Your task to perform on an android device: Search for a new lipstick on Sephora Image 0: 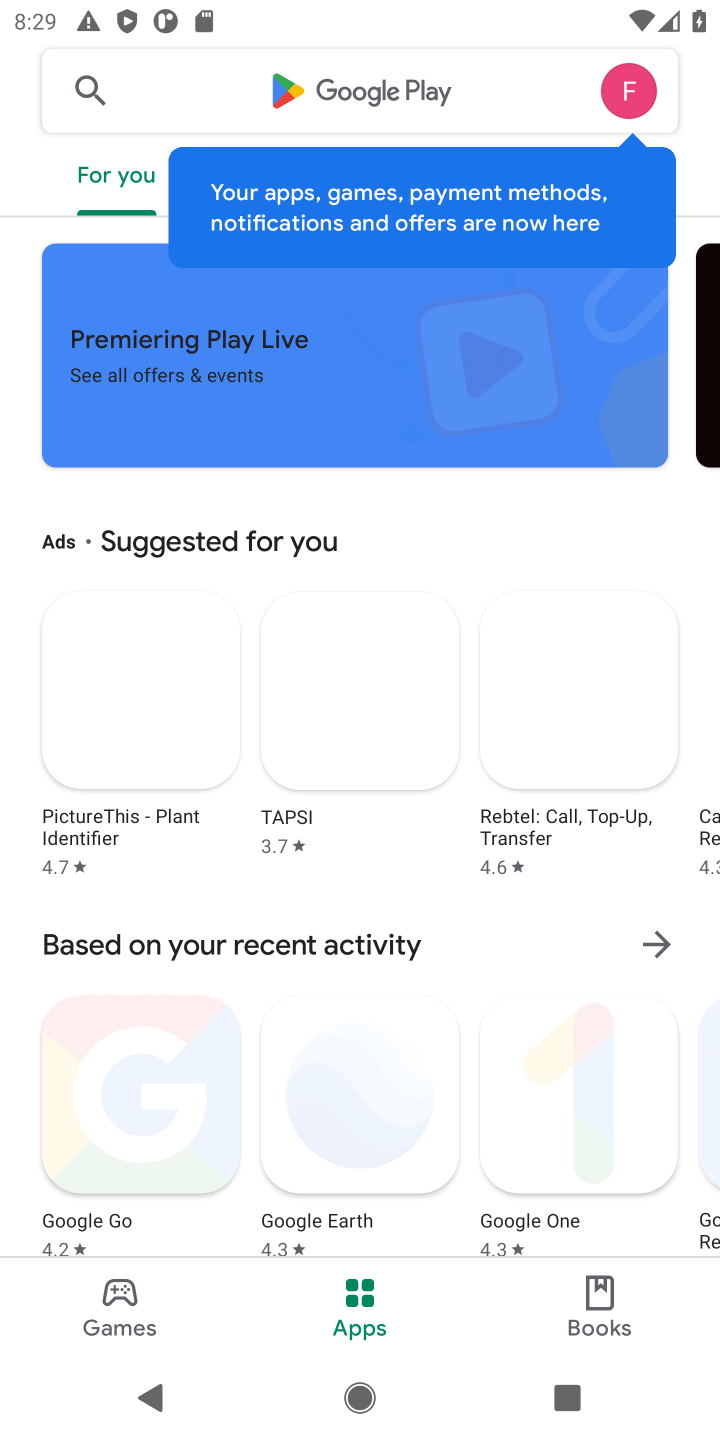
Step 0: press home button
Your task to perform on an android device: Search for a new lipstick on Sephora Image 1: 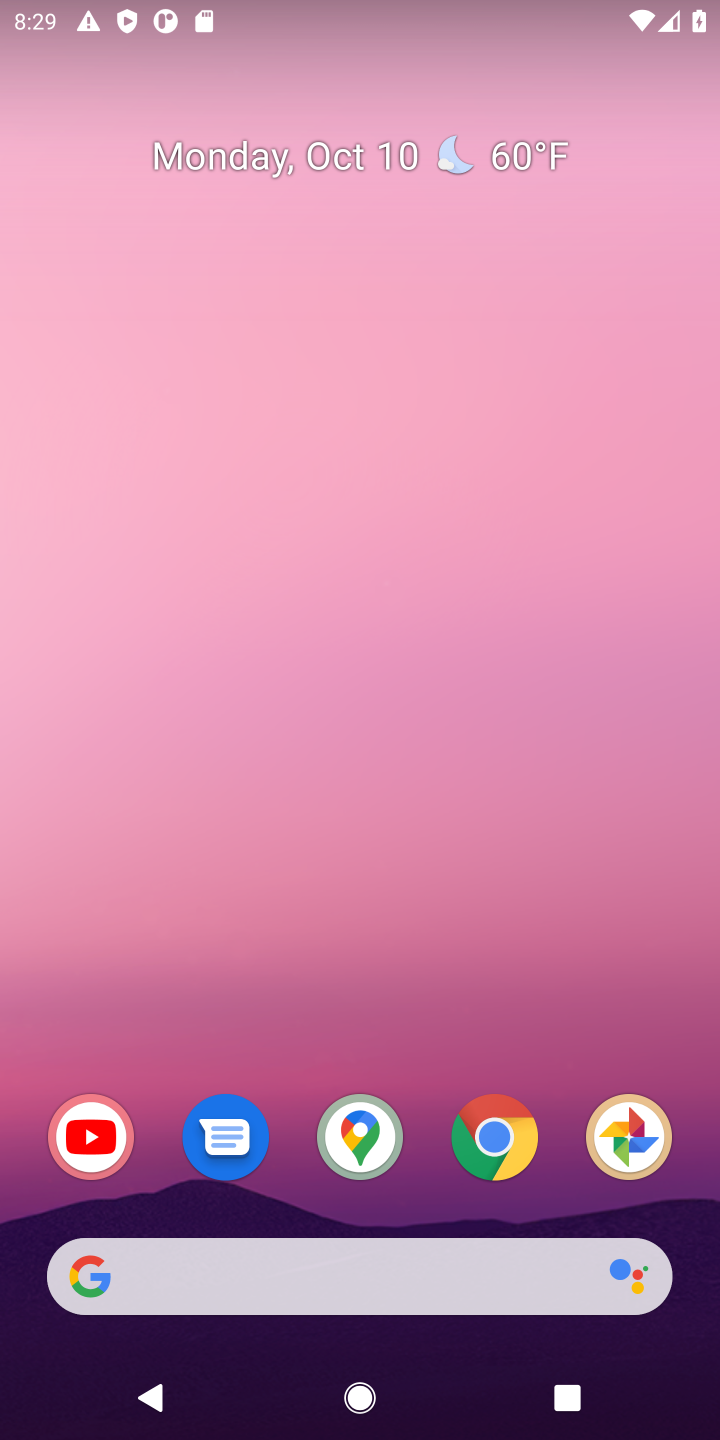
Step 1: click (489, 1130)
Your task to perform on an android device: Search for a new lipstick on Sephora Image 2: 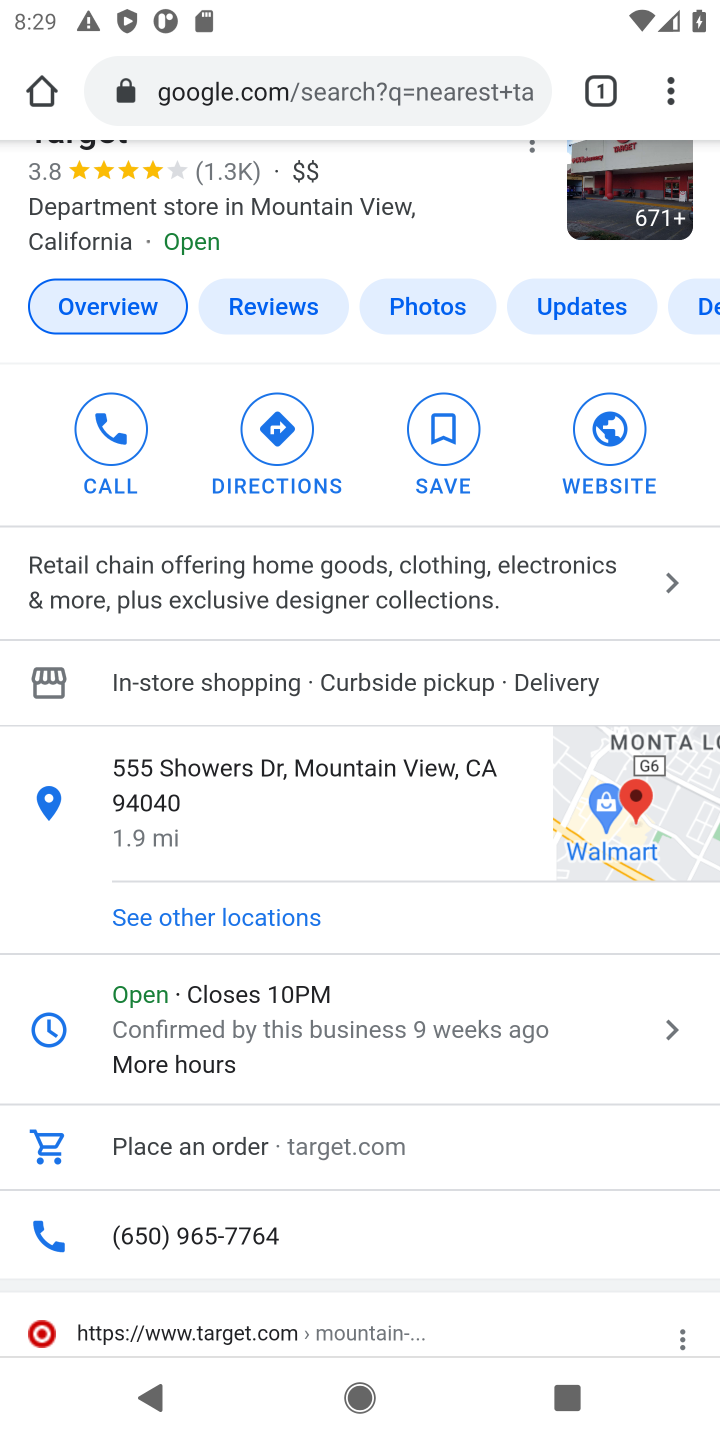
Step 2: click (280, 72)
Your task to perform on an android device: Search for a new lipstick on Sephora Image 3: 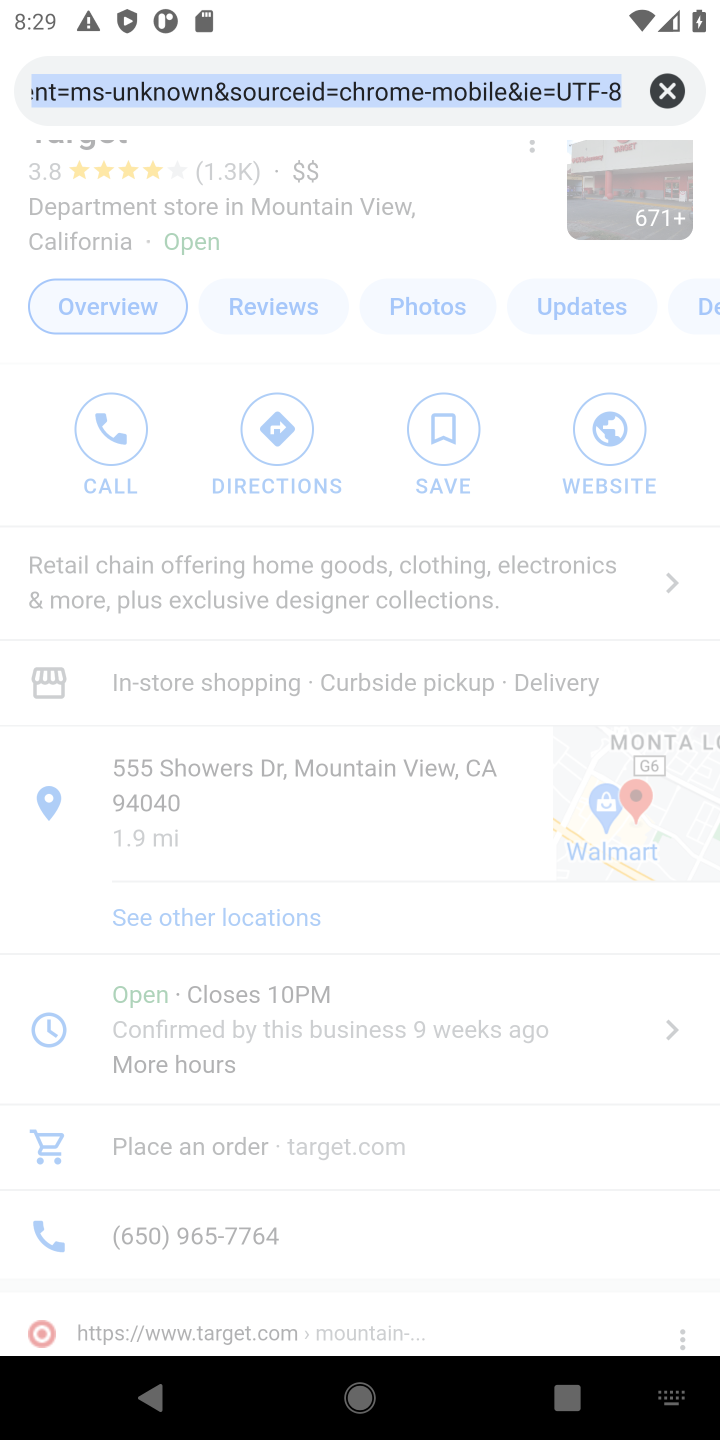
Step 3: click (663, 80)
Your task to perform on an android device: Search for a new lipstick on Sephora Image 4: 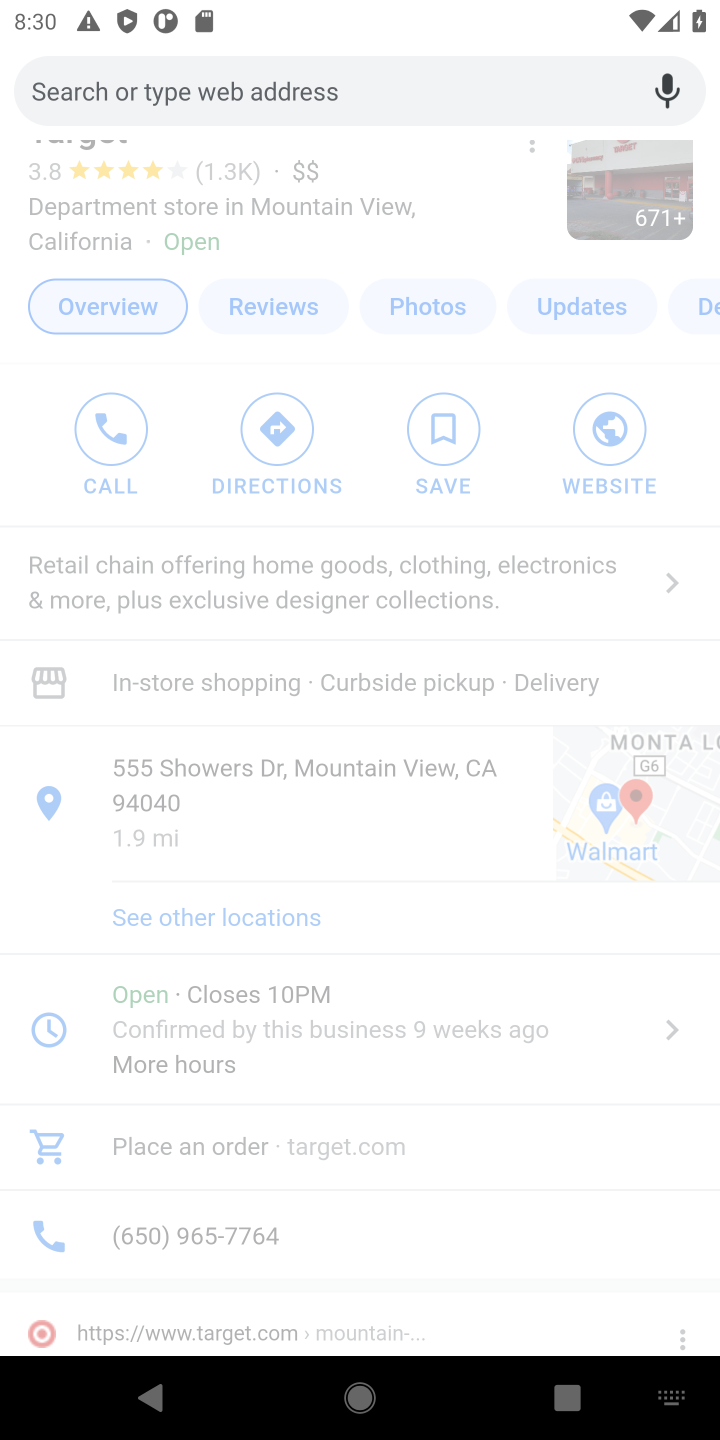
Step 4: type "sephora"
Your task to perform on an android device: Search for a new lipstick on Sephora Image 5: 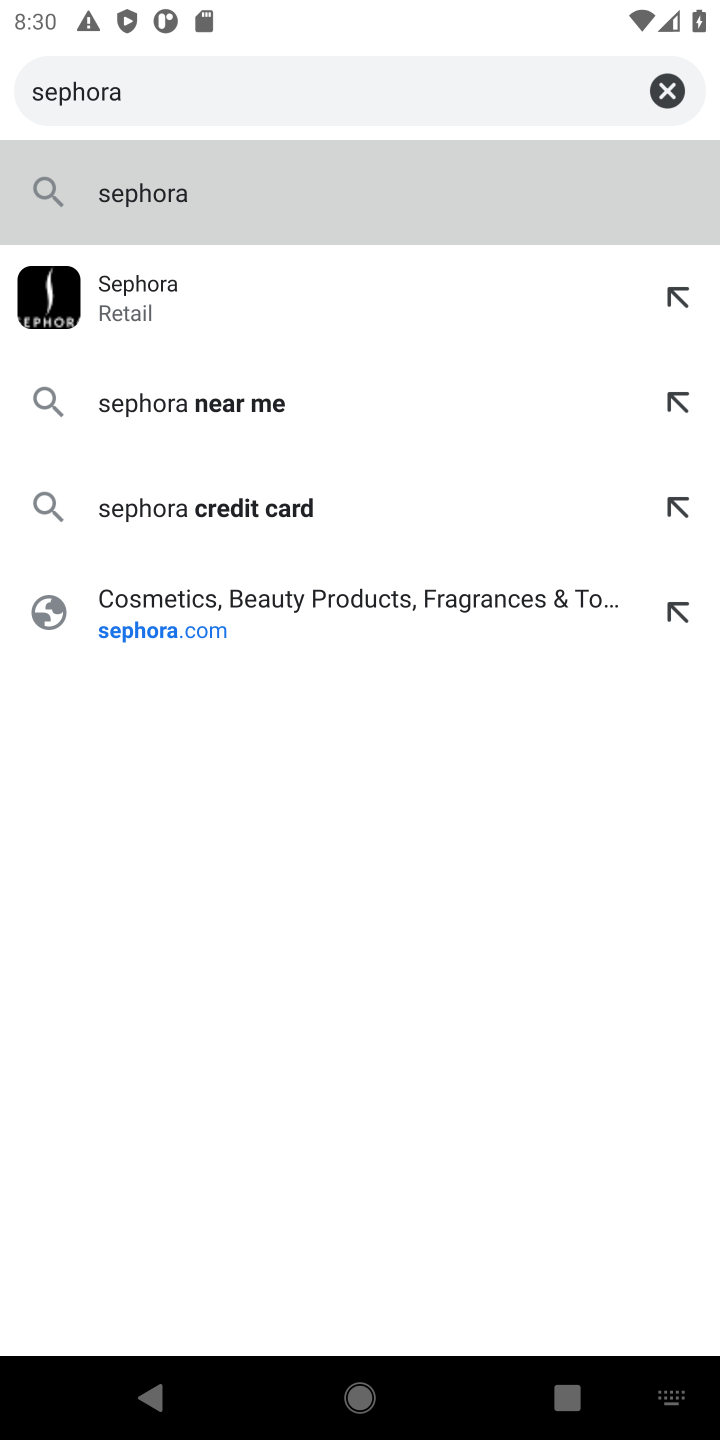
Step 5: click (167, 278)
Your task to perform on an android device: Search for a new lipstick on Sephora Image 6: 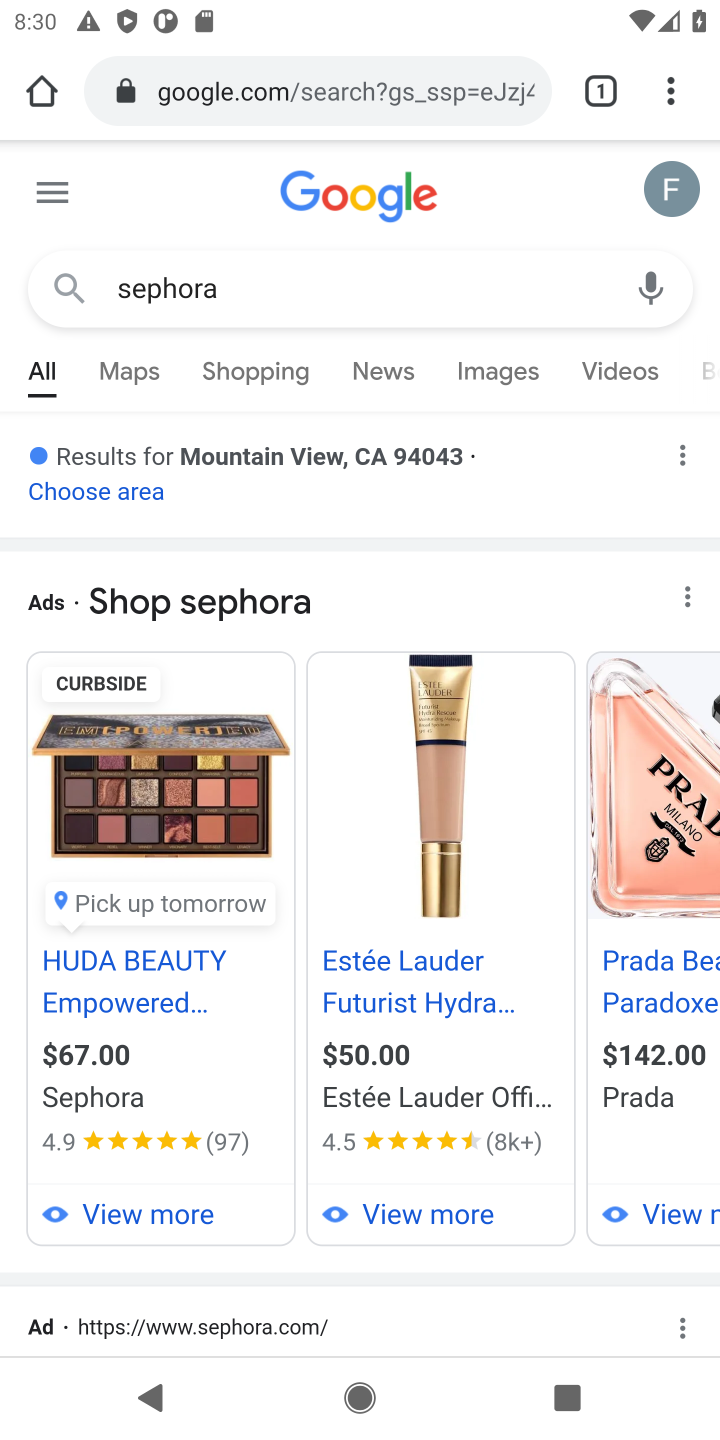
Step 6: drag from (317, 570) to (276, 118)
Your task to perform on an android device: Search for a new lipstick on Sephora Image 7: 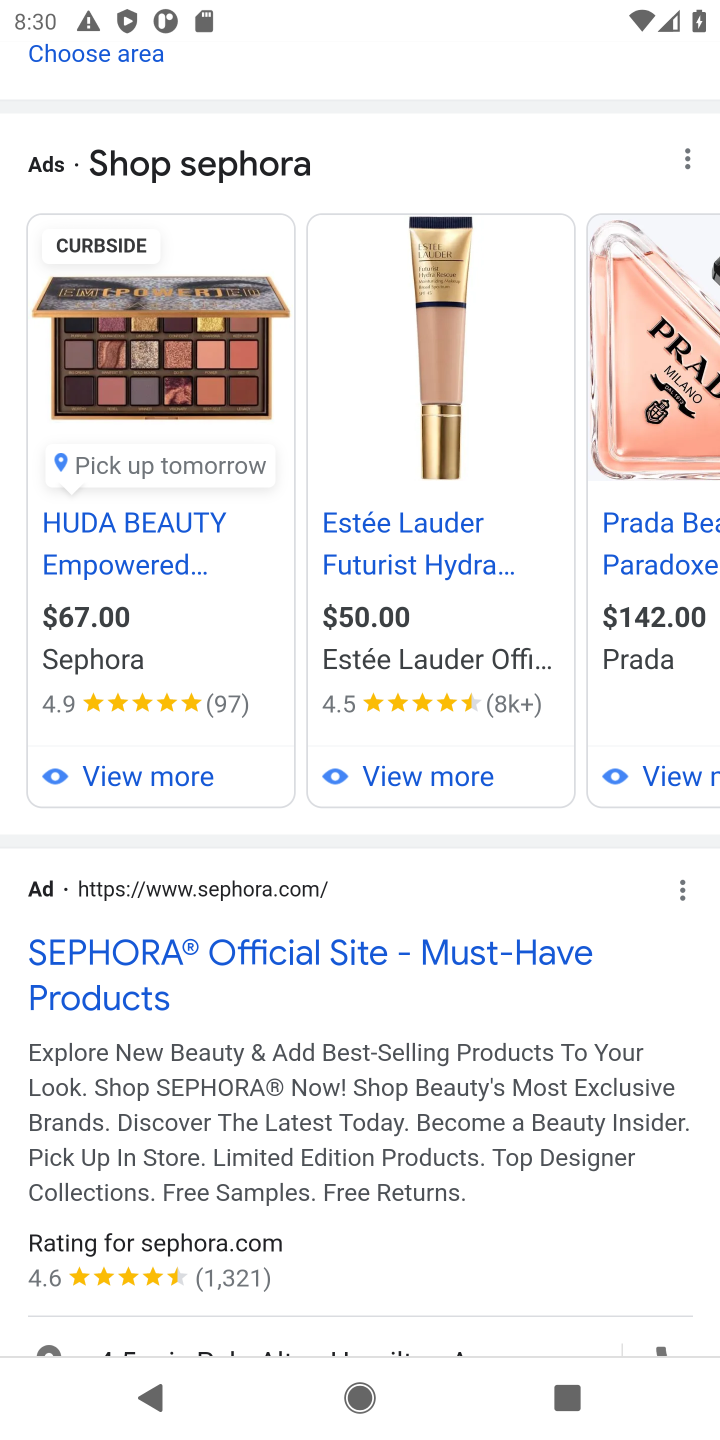
Step 7: click (118, 984)
Your task to perform on an android device: Search for a new lipstick on Sephora Image 8: 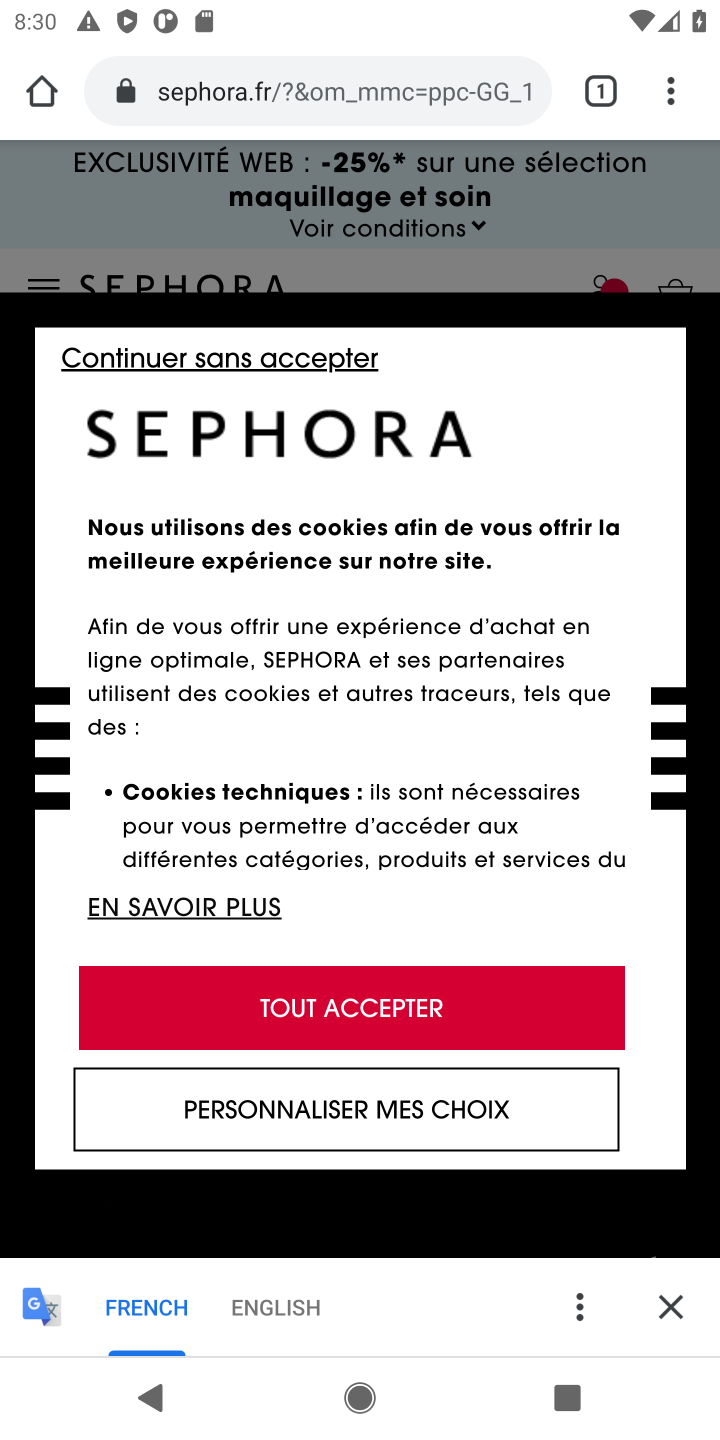
Step 8: click (323, 1003)
Your task to perform on an android device: Search for a new lipstick on Sephora Image 9: 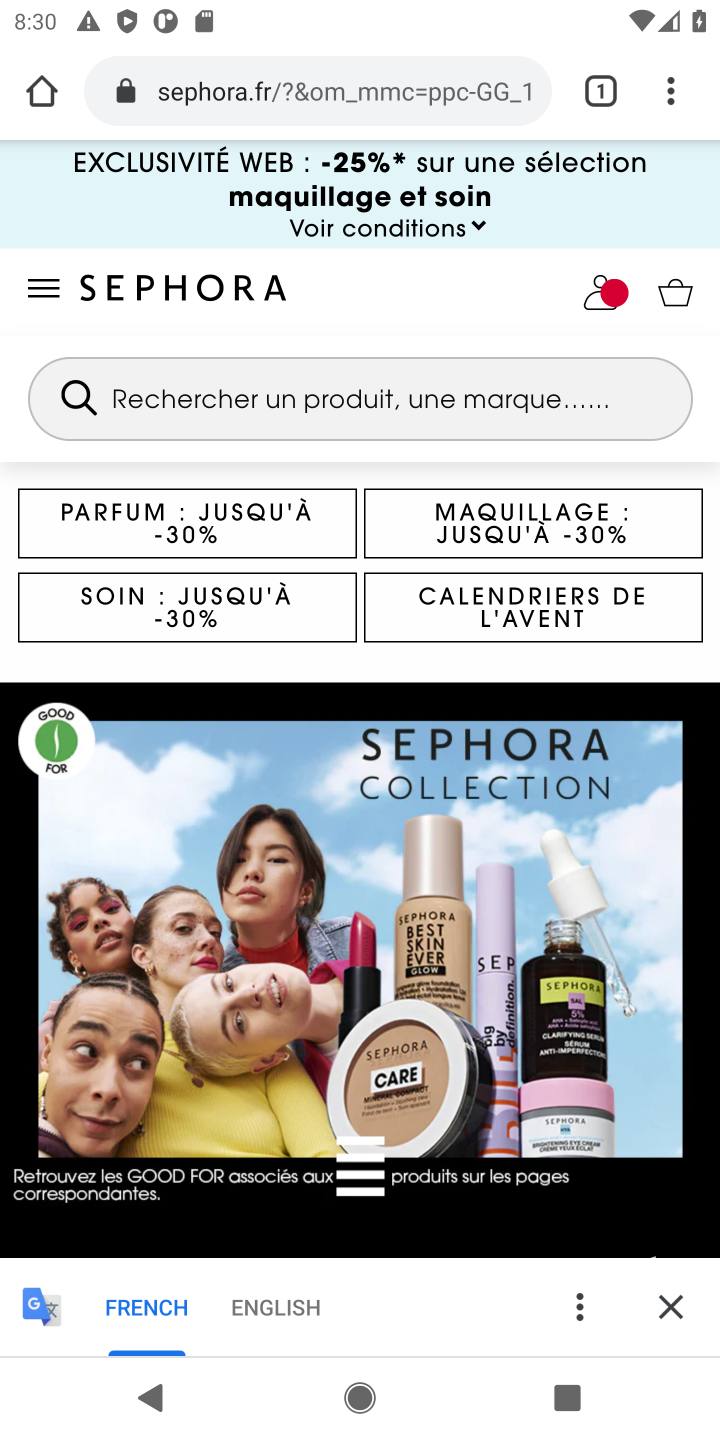
Step 9: click (240, 390)
Your task to perform on an android device: Search for a new lipstick on Sephora Image 10: 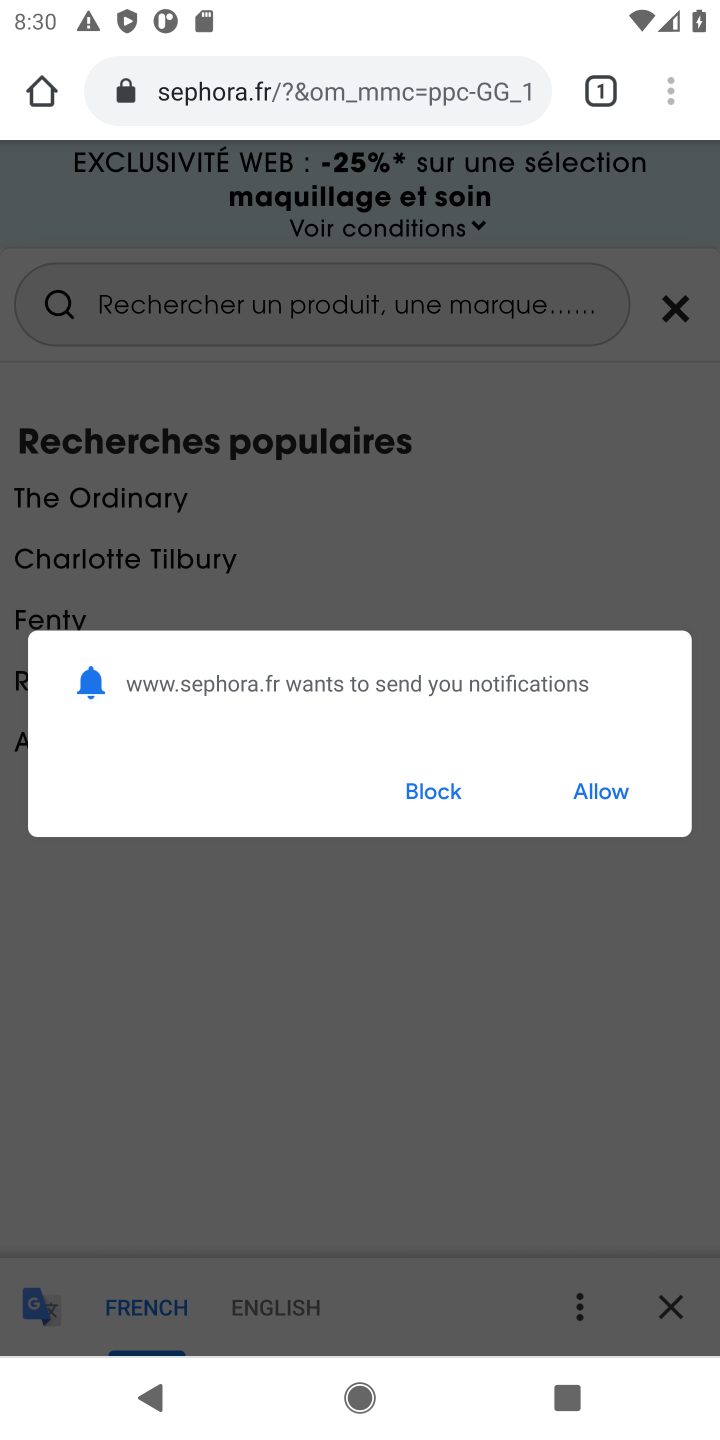
Step 10: click (429, 779)
Your task to perform on an android device: Search for a new lipstick on Sephora Image 11: 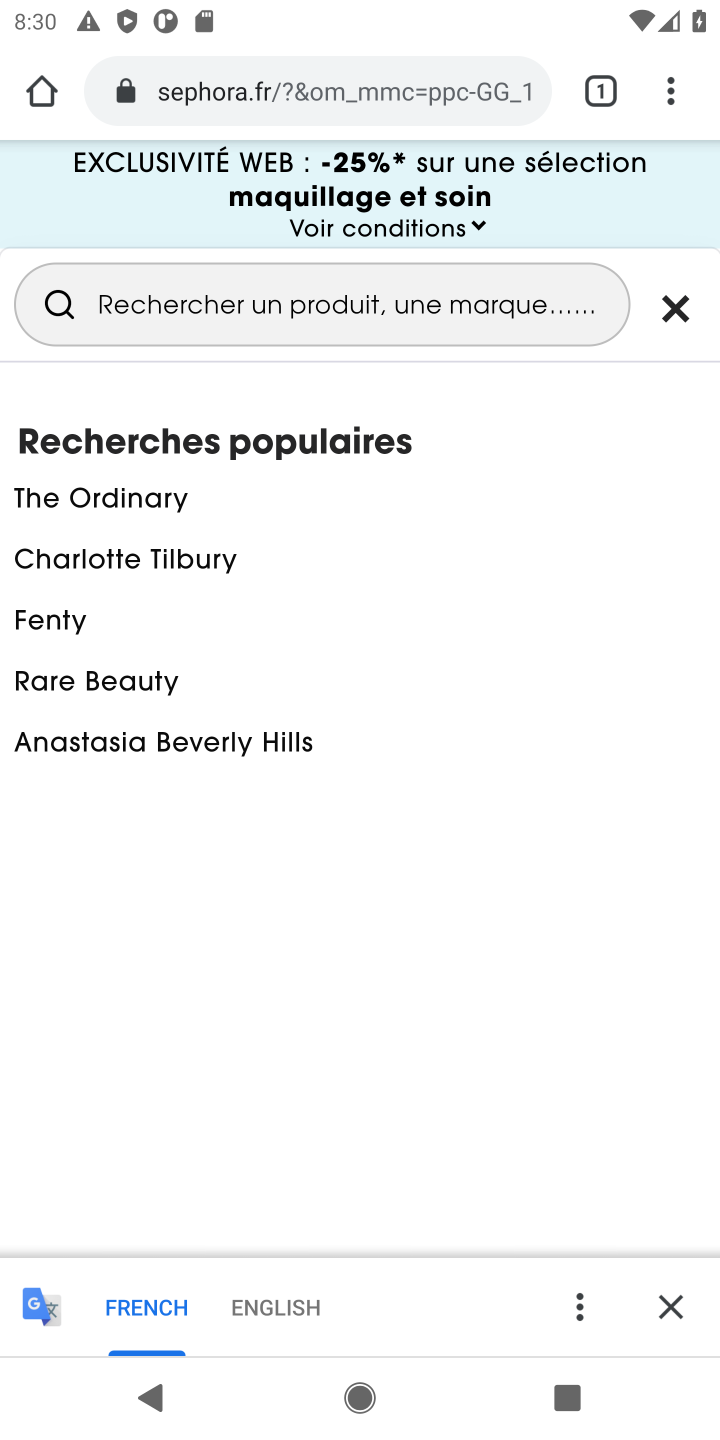
Step 11: click (265, 312)
Your task to perform on an android device: Search for a new lipstick on Sephora Image 12: 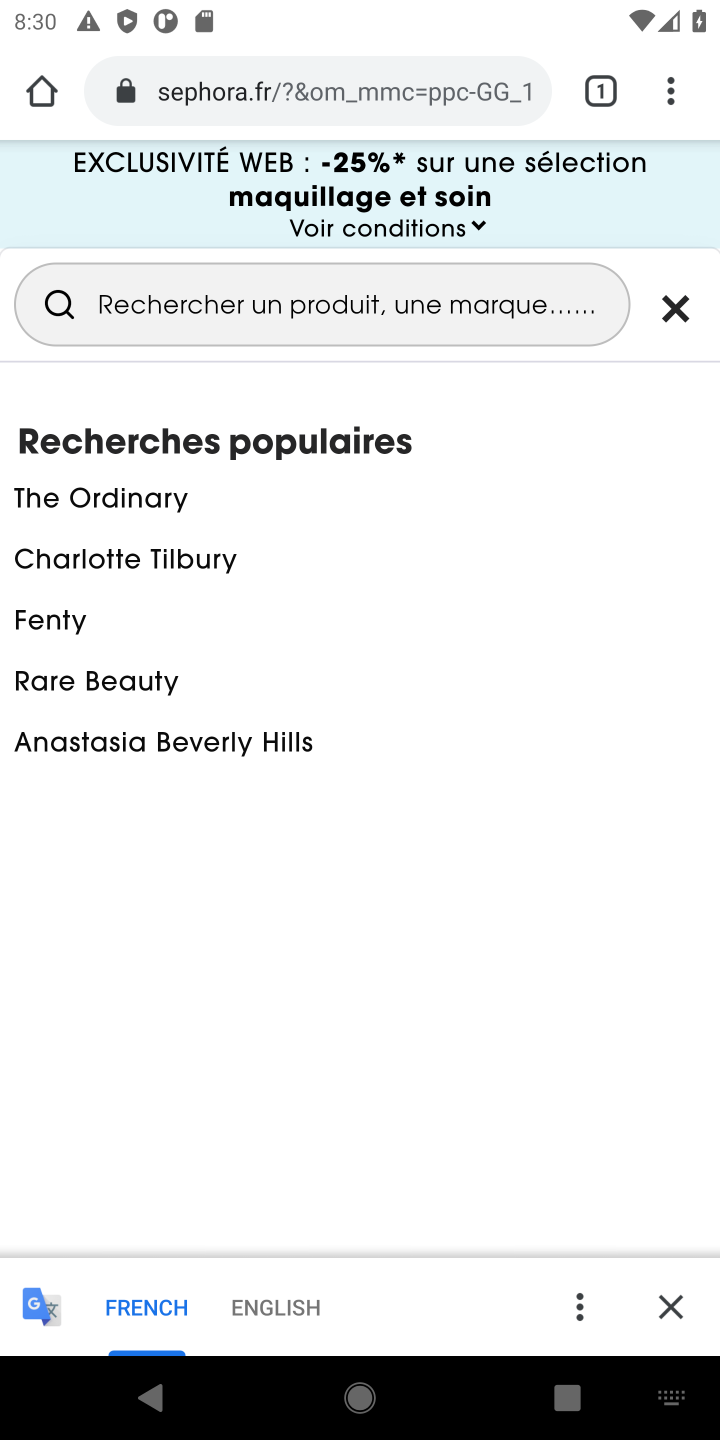
Step 12: type "lipstick"
Your task to perform on an android device: Search for a new lipstick on Sephora Image 13: 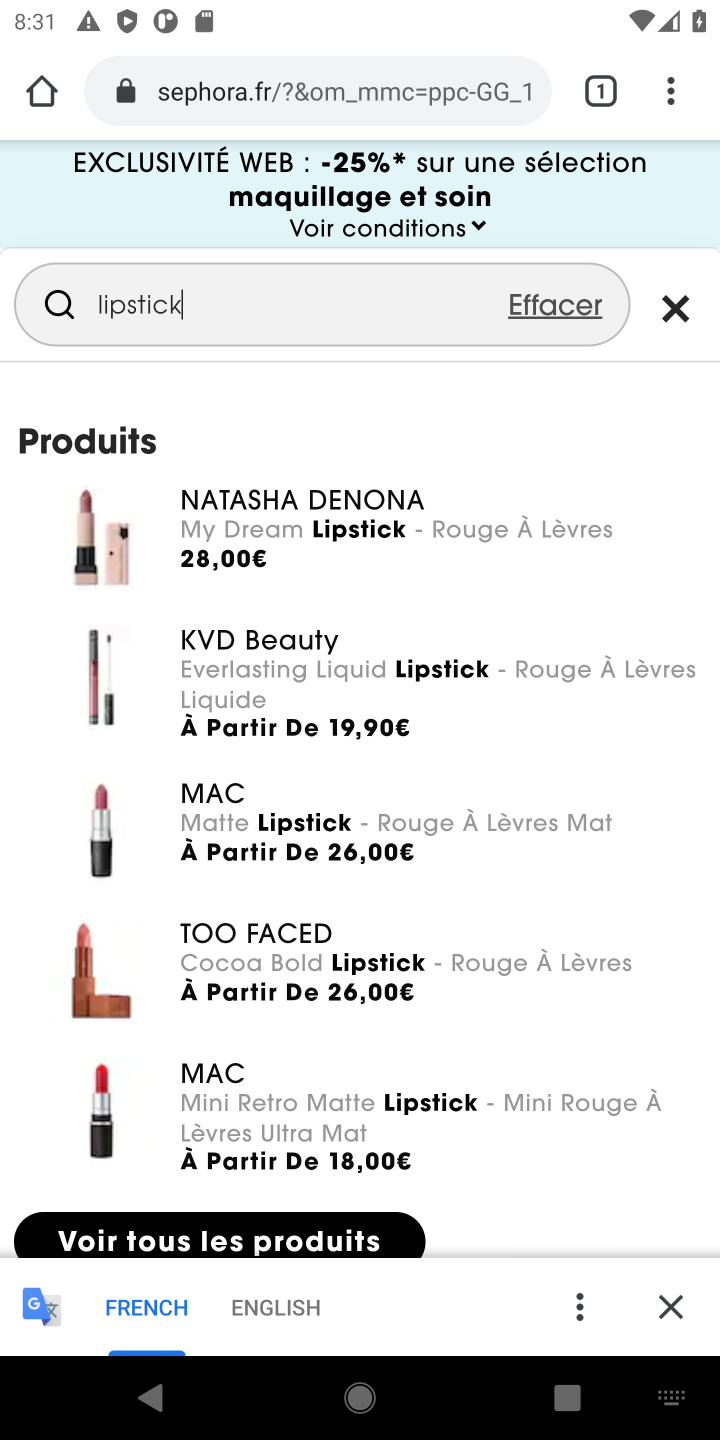
Step 13: drag from (186, 886) to (174, 575)
Your task to perform on an android device: Search for a new lipstick on Sephora Image 14: 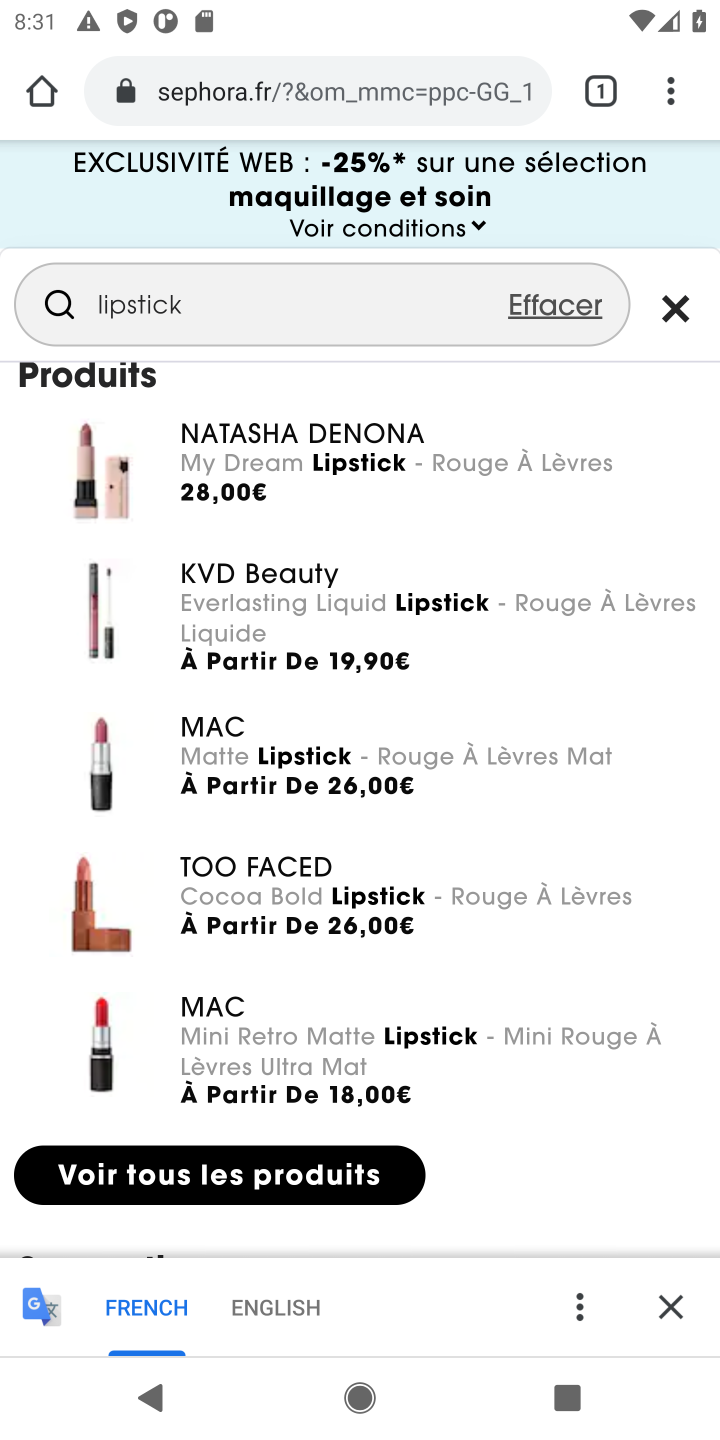
Step 14: click (225, 437)
Your task to perform on an android device: Search for a new lipstick on Sephora Image 15: 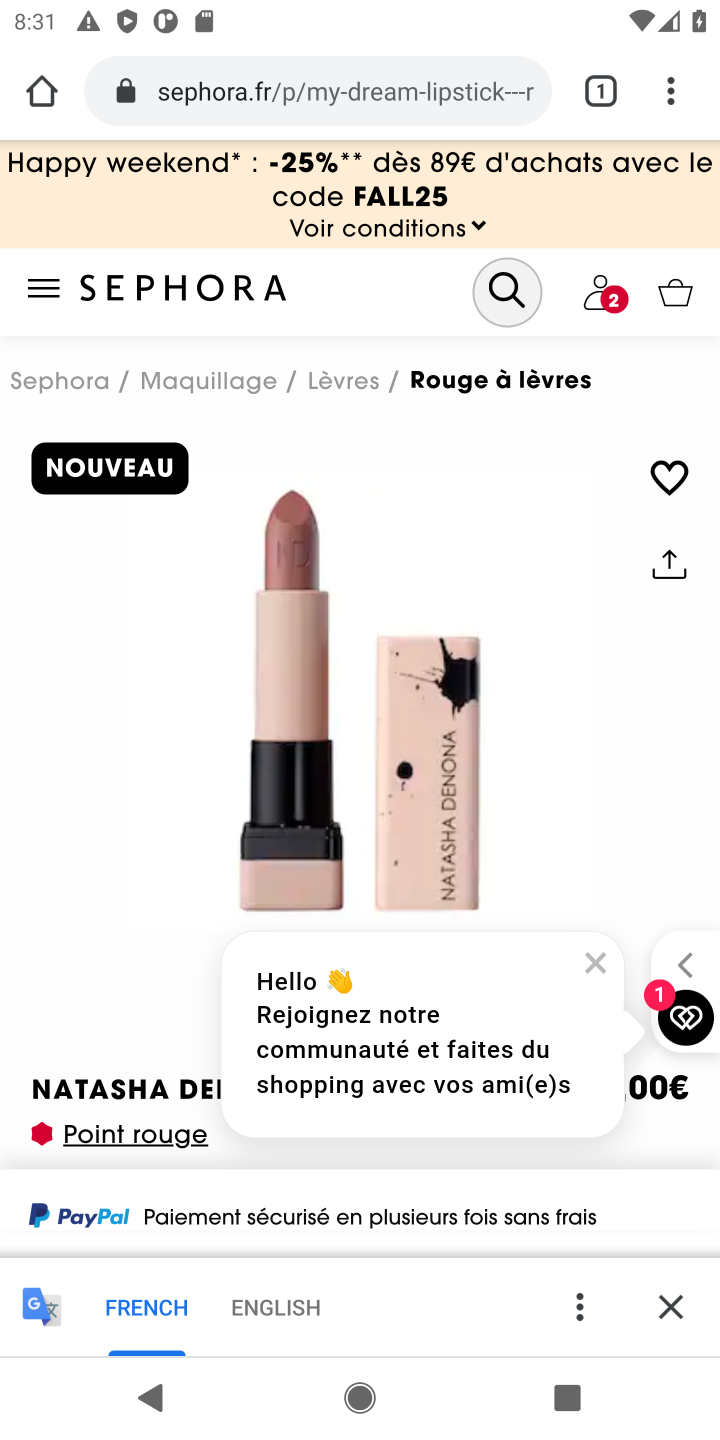
Step 15: task complete